Your task to perform on an android device: delete browsing data in the chrome app Image 0: 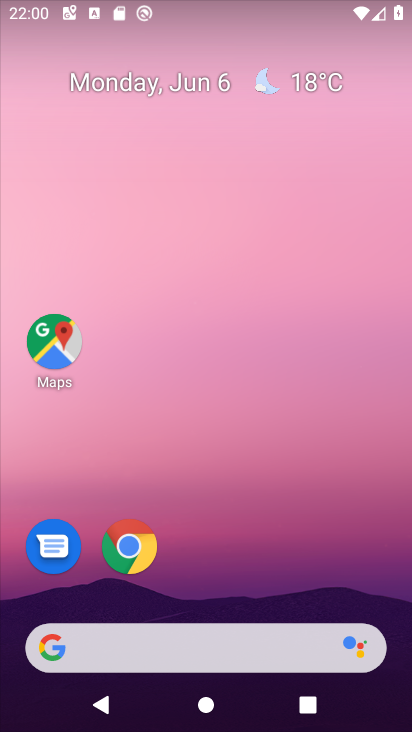
Step 0: click (131, 546)
Your task to perform on an android device: delete browsing data in the chrome app Image 1: 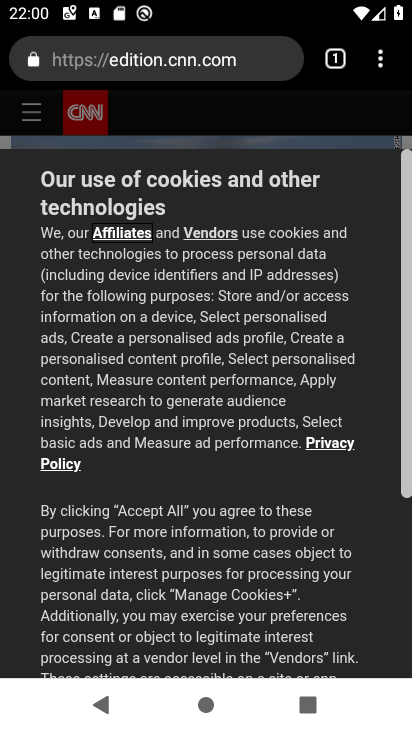
Step 1: click (374, 62)
Your task to perform on an android device: delete browsing data in the chrome app Image 2: 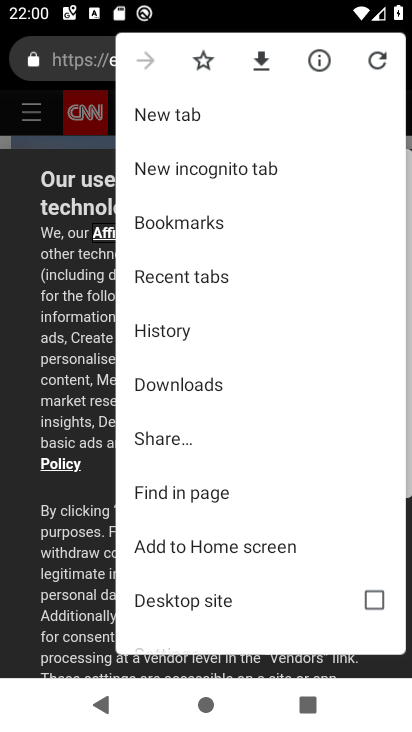
Step 2: click (163, 329)
Your task to perform on an android device: delete browsing data in the chrome app Image 3: 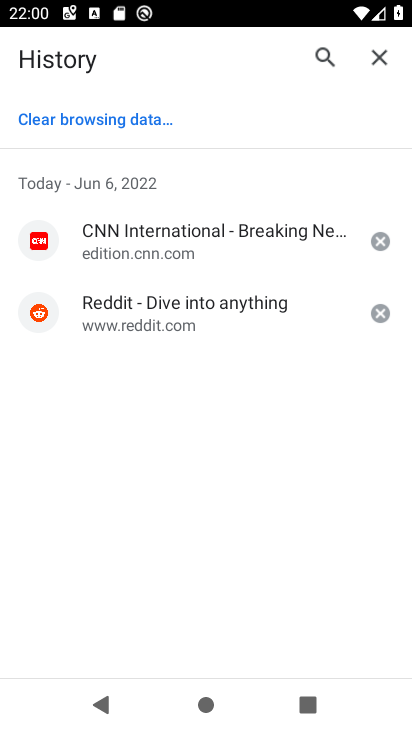
Step 3: click (102, 117)
Your task to perform on an android device: delete browsing data in the chrome app Image 4: 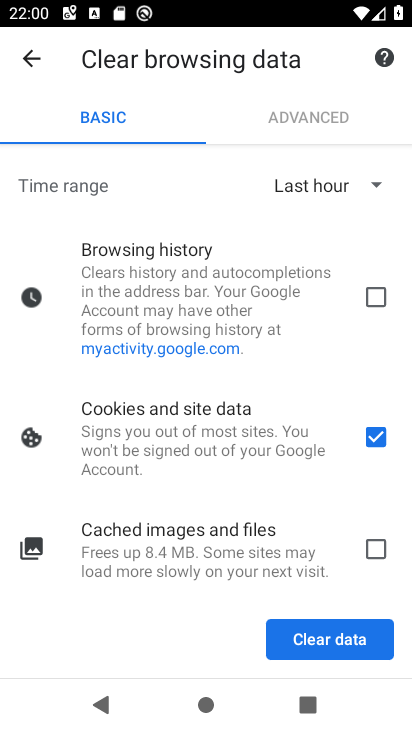
Step 4: click (374, 296)
Your task to perform on an android device: delete browsing data in the chrome app Image 5: 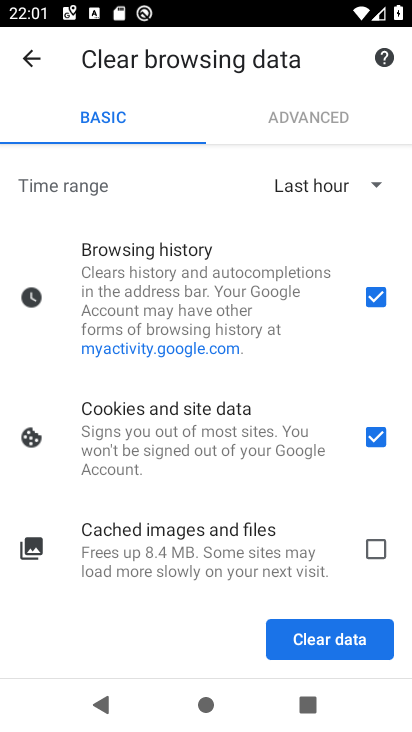
Step 5: click (371, 435)
Your task to perform on an android device: delete browsing data in the chrome app Image 6: 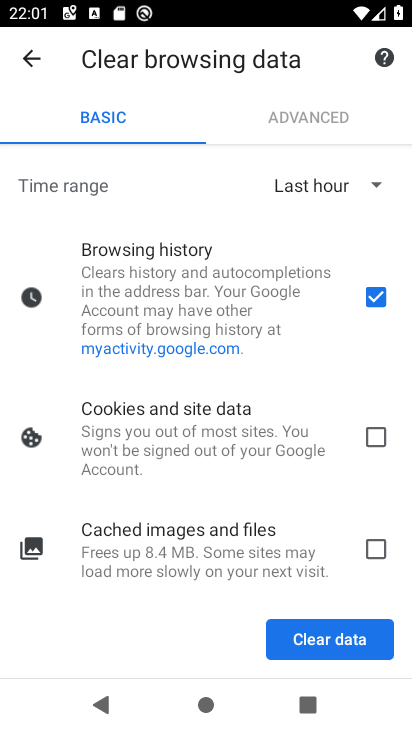
Step 6: click (326, 646)
Your task to perform on an android device: delete browsing data in the chrome app Image 7: 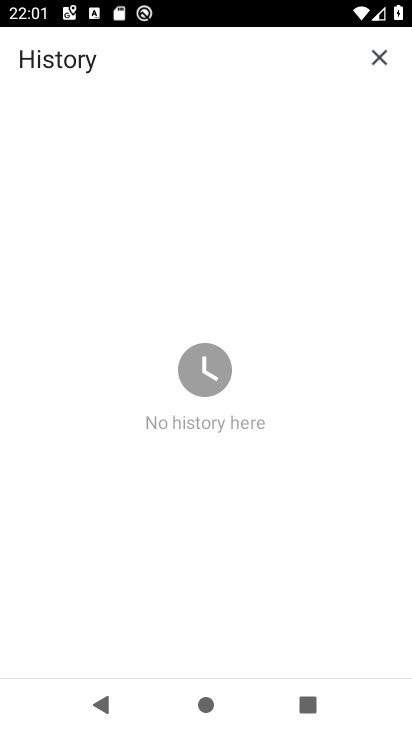
Step 7: task complete